Your task to perform on an android device: Go to accessibility settings Image 0: 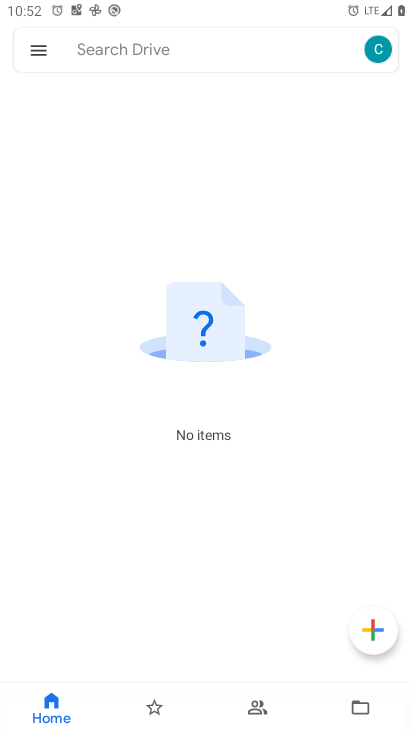
Step 0: press home button
Your task to perform on an android device: Go to accessibility settings Image 1: 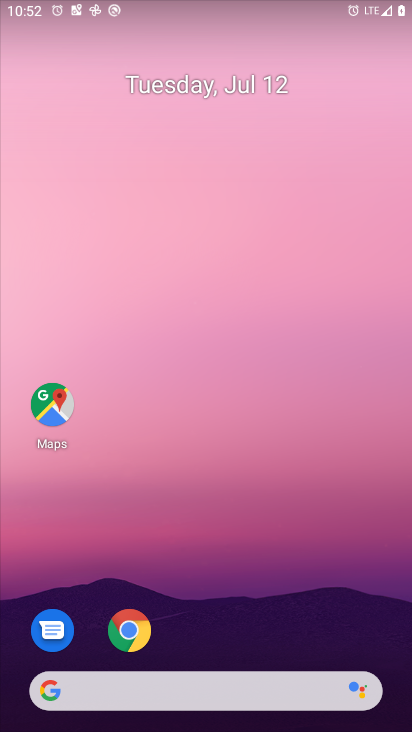
Step 1: press home button
Your task to perform on an android device: Go to accessibility settings Image 2: 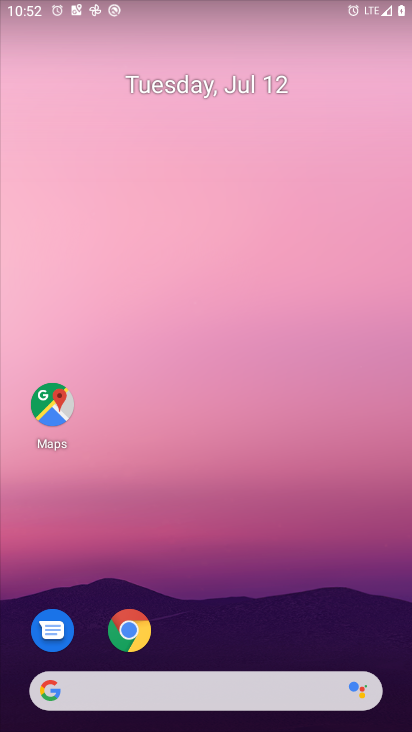
Step 2: drag from (238, 620) to (249, 53)
Your task to perform on an android device: Go to accessibility settings Image 3: 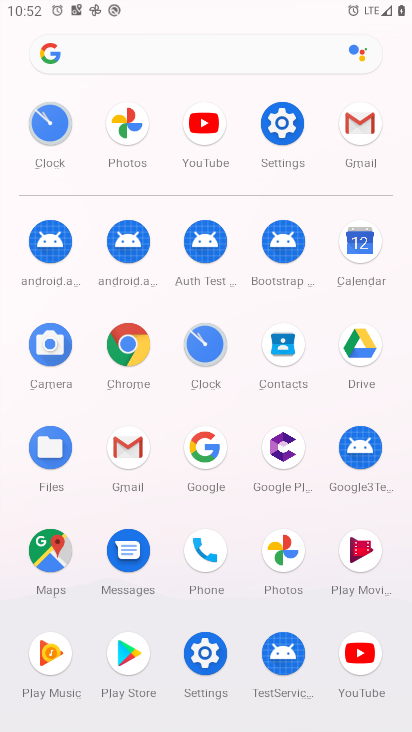
Step 3: click (298, 128)
Your task to perform on an android device: Go to accessibility settings Image 4: 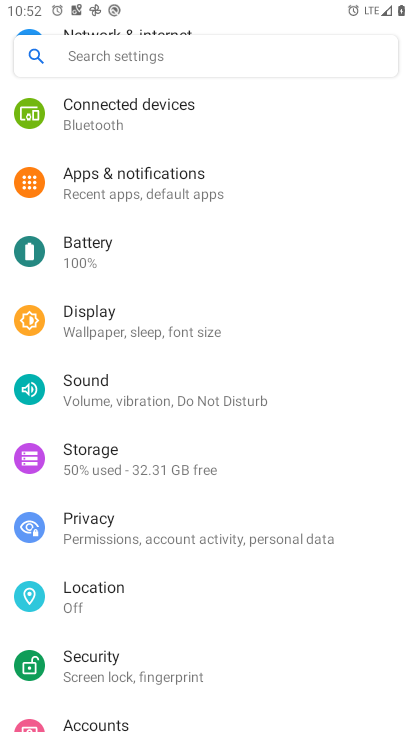
Step 4: drag from (261, 141) to (269, 76)
Your task to perform on an android device: Go to accessibility settings Image 5: 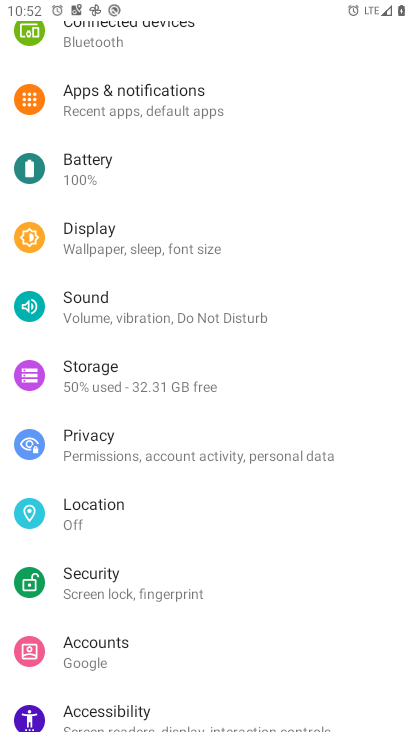
Step 5: click (124, 709)
Your task to perform on an android device: Go to accessibility settings Image 6: 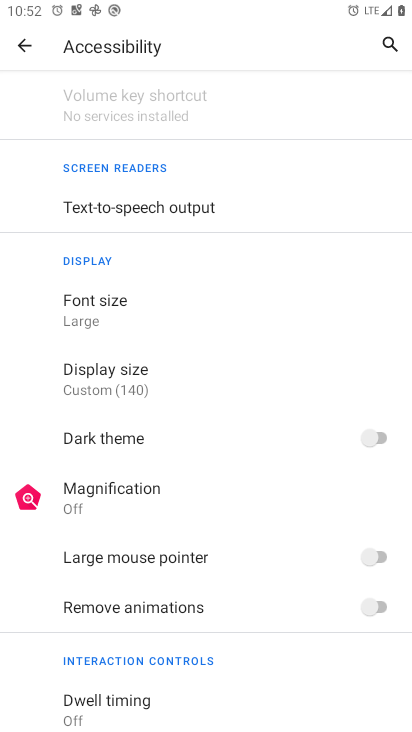
Step 6: task complete